Your task to perform on an android device: Search for sushi restaurants on Maps Image 0: 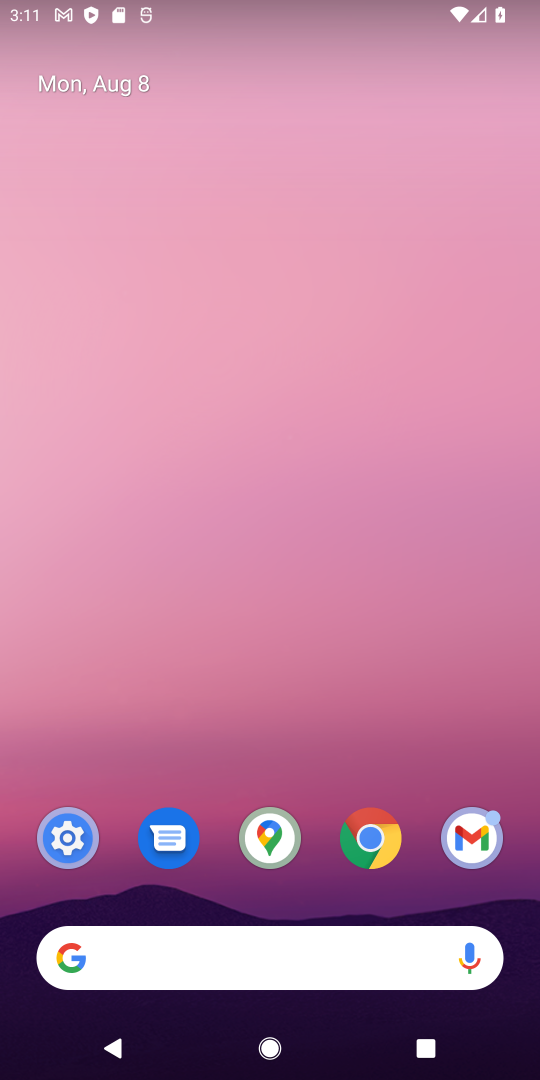
Step 0: click (266, 835)
Your task to perform on an android device: Search for sushi restaurants on Maps Image 1: 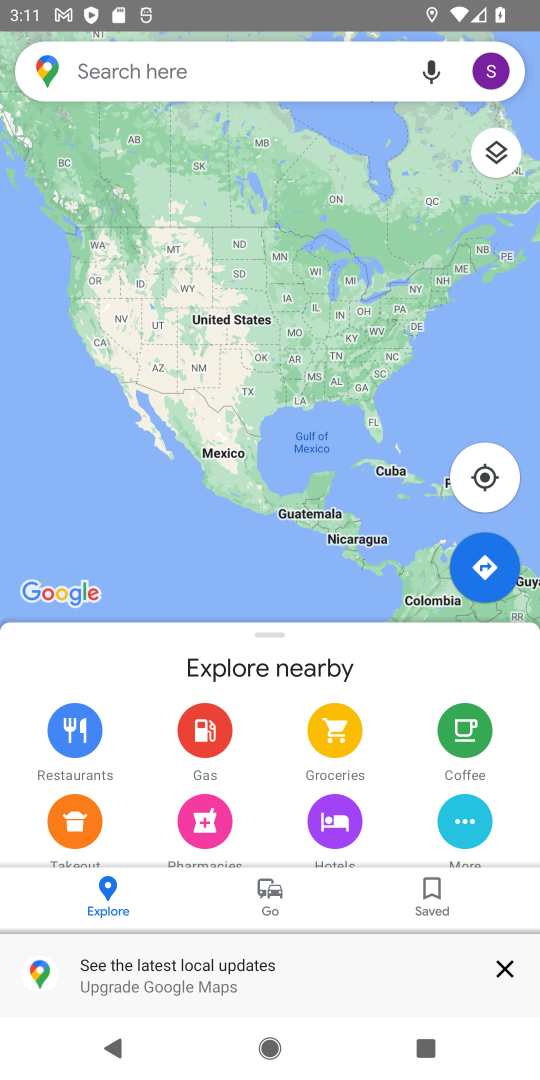
Step 1: click (308, 73)
Your task to perform on an android device: Search for sushi restaurants on Maps Image 2: 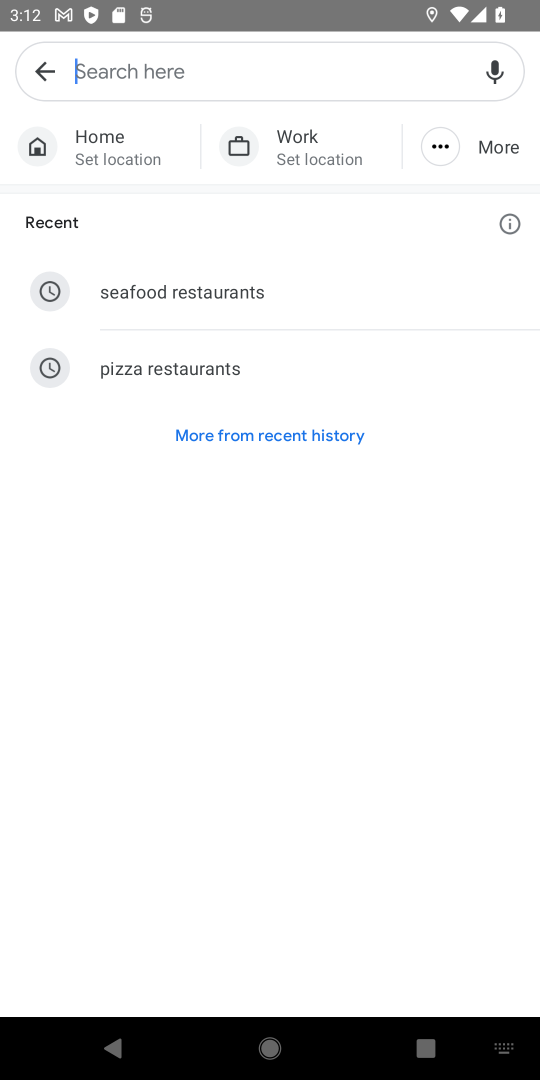
Step 2: type "sushi restaurants"
Your task to perform on an android device: Search for sushi restaurants on Maps Image 3: 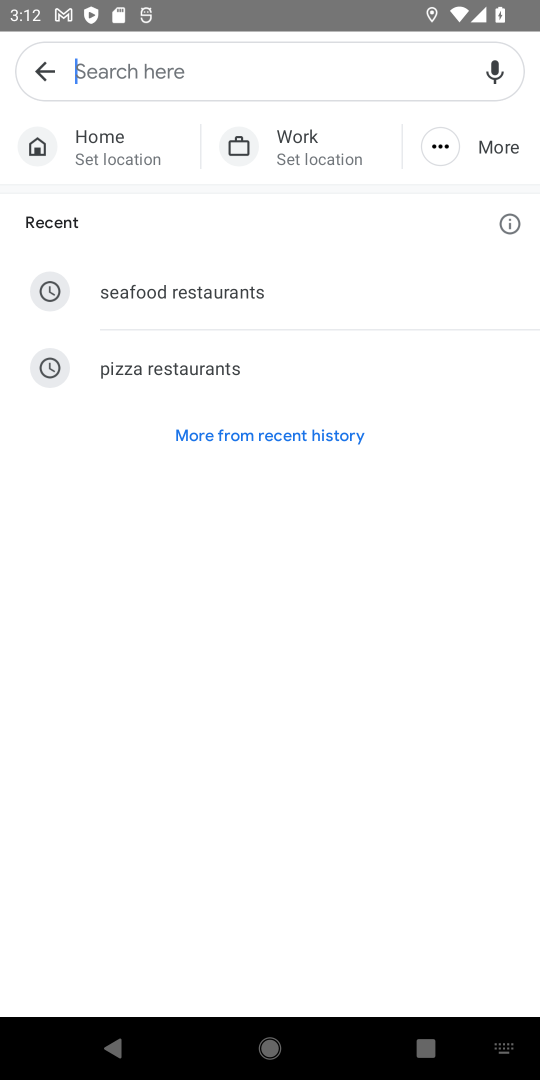
Step 3: click (226, 297)
Your task to perform on an android device: Search for sushi restaurants on Maps Image 4: 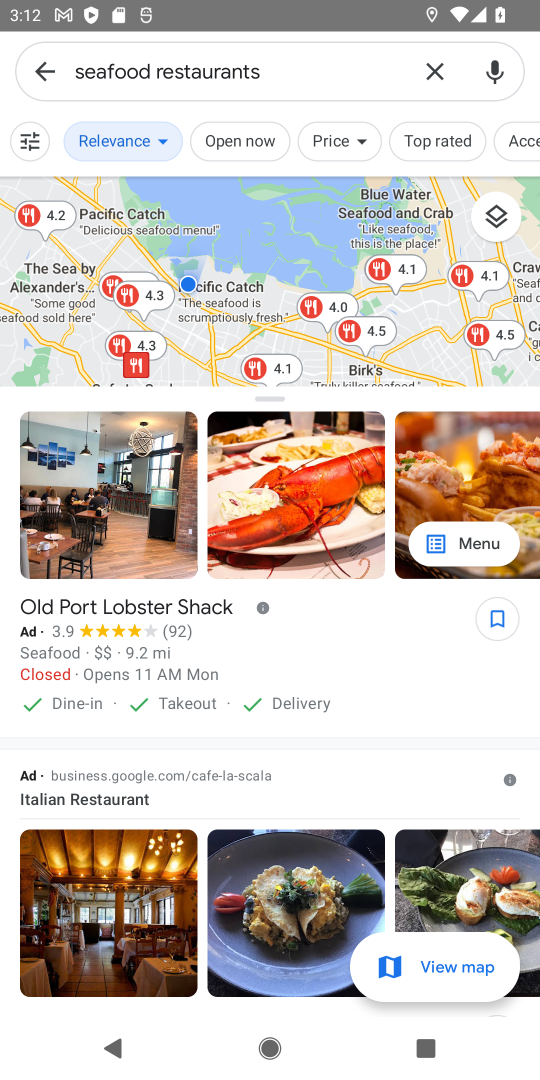
Step 4: task complete